Your task to perform on an android device: Open the calendar and show me this week's events? Image 0: 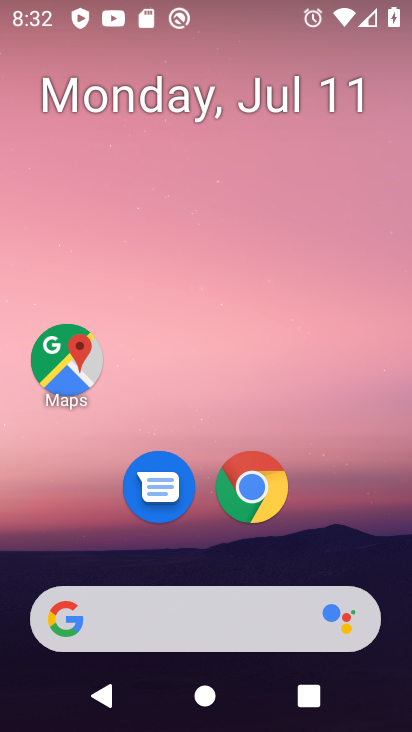
Step 0: drag from (180, 538) to (256, 43)
Your task to perform on an android device: Open the calendar and show me this week's events? Image 1: 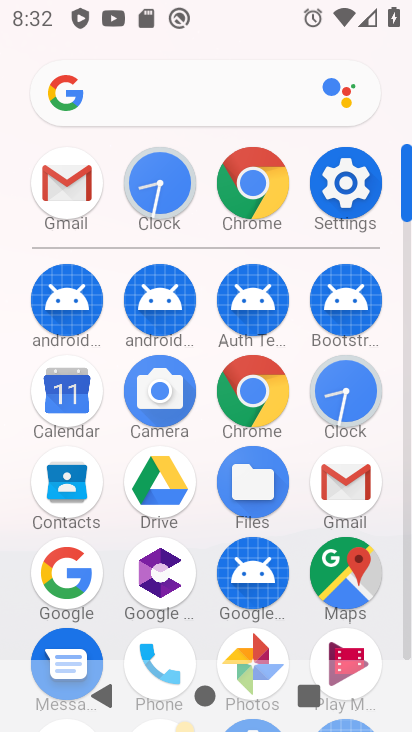
Step 1: click (72, 395)
Your task to perform on an android device: Open the calendar and show me this week's events? Image 2: 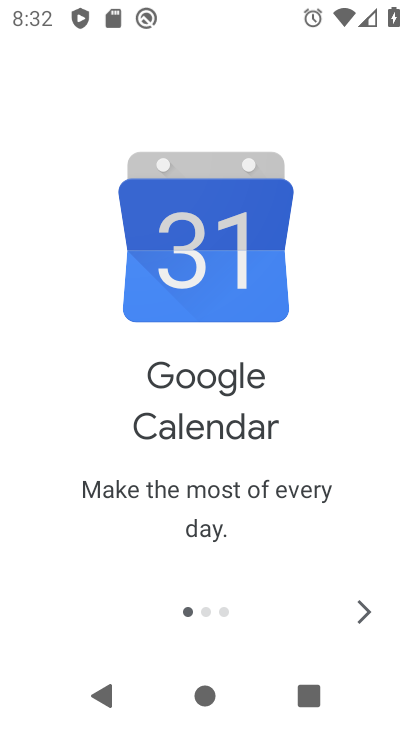
Step 2: click (370, 607)
Your task to perform on an android device: Open the calendar and show me this week's events? Image 3: 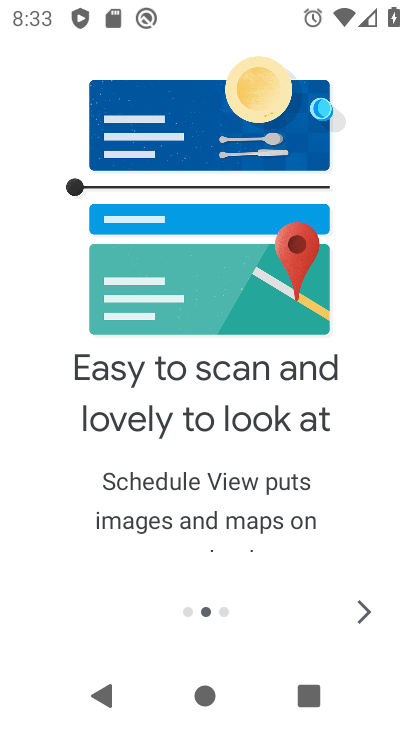
Step 3: click (349, 594)
Your task to perform on an android device: Open the calendar and show me this week's events? Image 4: 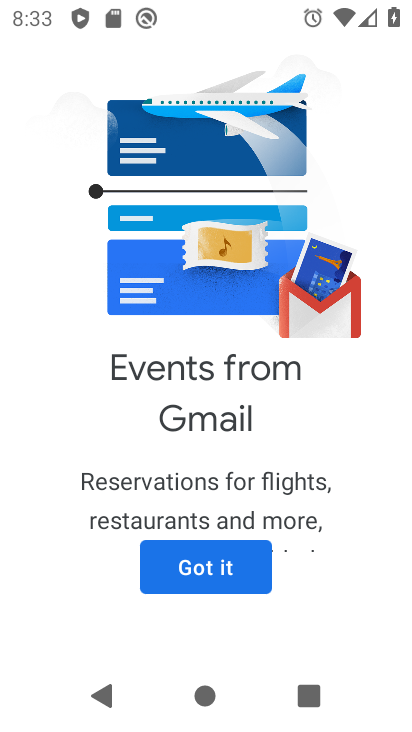
Step 4: click (229, 565)
Your task to perform on an android device: Open the calendar and show me this week's events? Image 5: 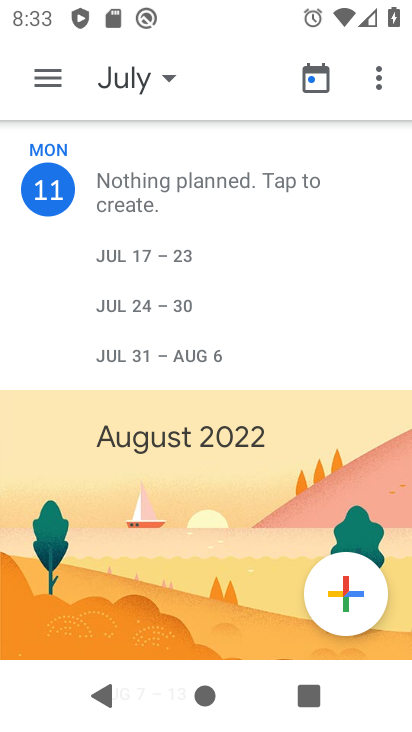
Step 5: task complete